Your task to perform on an android device: Check the weather Image 0: 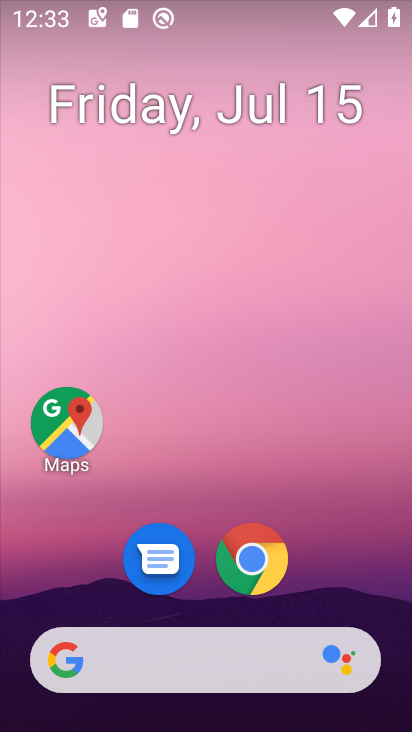
Step 0: click (254, 659)
Your task to perform on an android device: Check the weather Image 1: 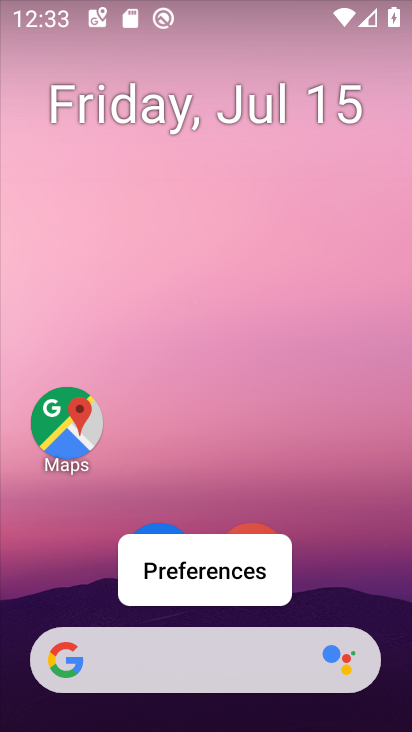
Step 1: click (221, 652)
Your task to perform on an android device: Check the weather Image 2: 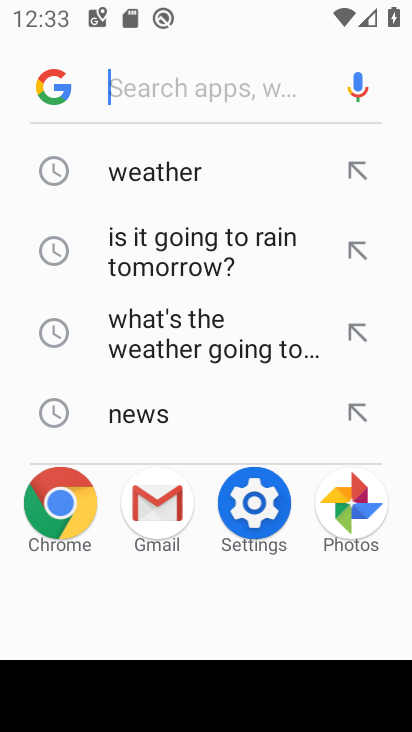
Step 2: type "weather"
Your task to perform on an android device: Check the weather Image 3: 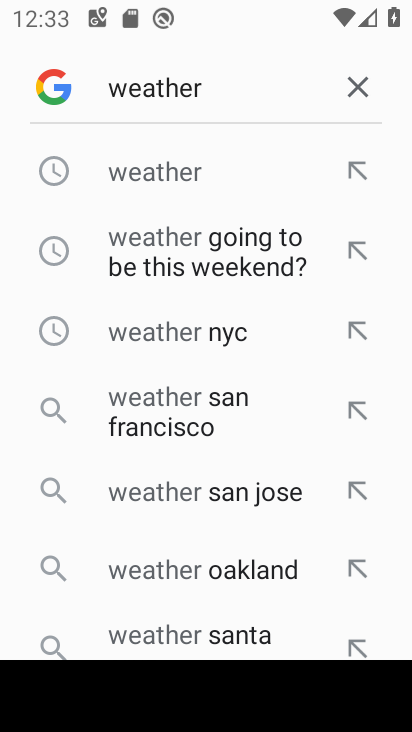
Step 3: click (245, 179)
Your task to perform on an android device: Check the weather Image 4: 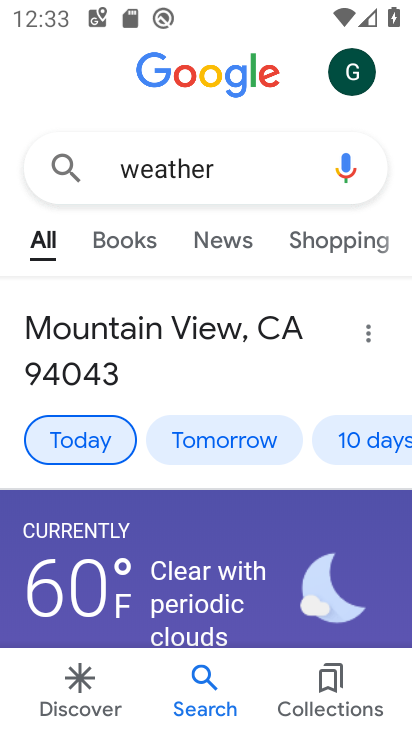
Step 4: task complete